Your task to perform on an android device: delete location history Image 0: 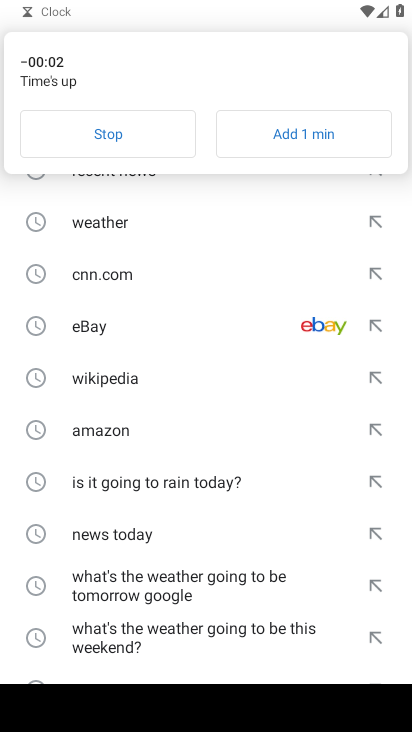
Step 0: press home button
Your task to perform on an android device: delete location history Image 1: 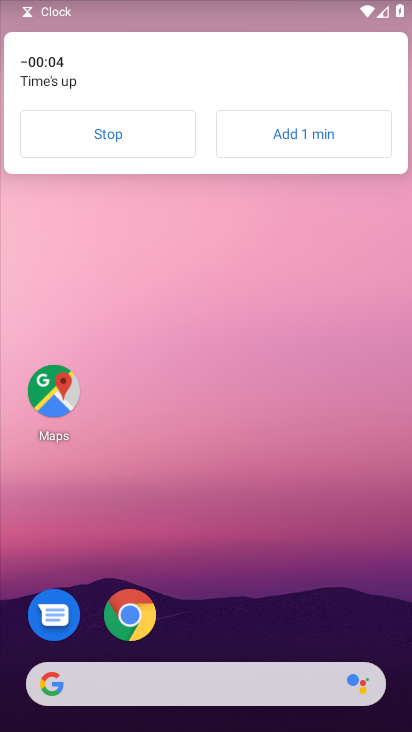
Step 1: click (109, 144)
Your task to perform on an android device: delete location history Image 2: 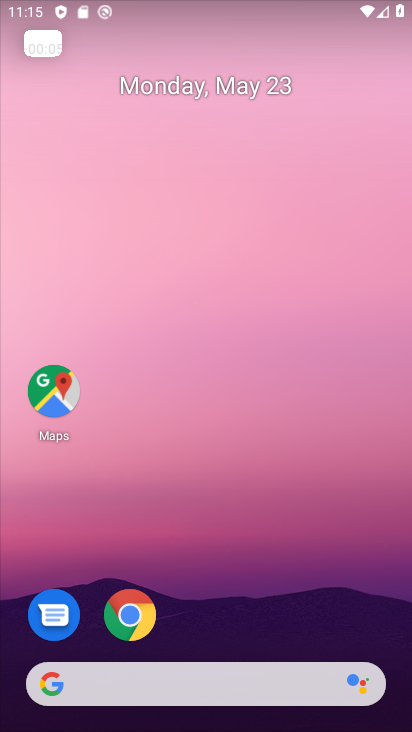
Step 2: click (53, 412)
Your task to perform on an android device: delete location history Image 3: 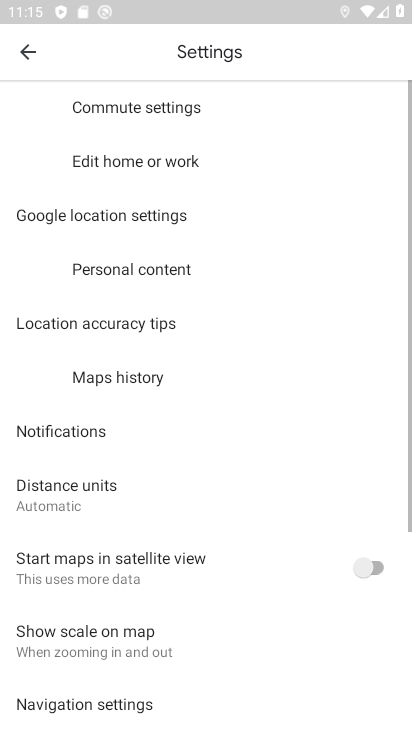
Step 3: click (29, 47)
Your task to perform on an android device: delete location history Image 4: 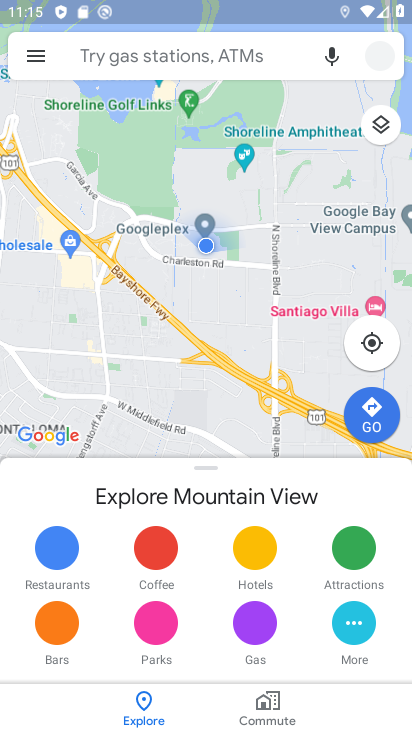
Step 4: click (29, 47)
Your task to perform on an android device: delete location history Image 5: 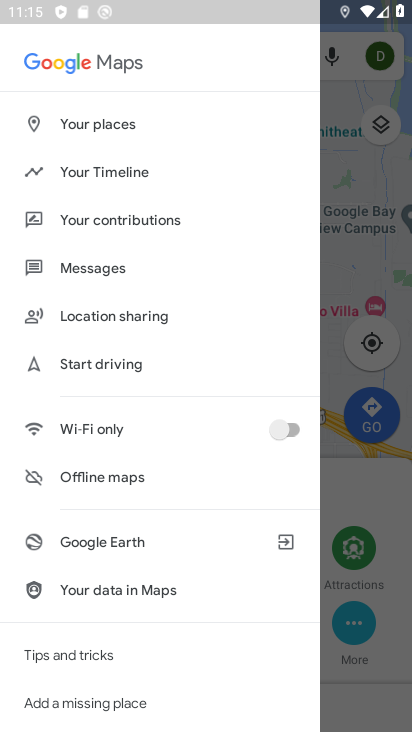
Step 5: click (96, 169)
Your task to perform on an android device: delete location history Image 6: 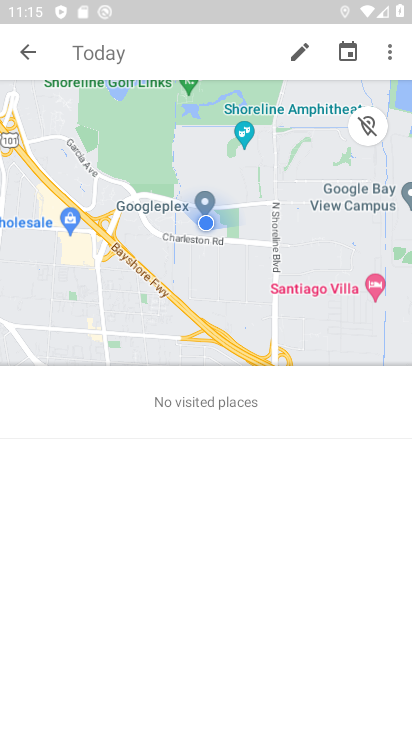
Step 6: click (400, 51)
Your task to perform on an android device: delete location history Image 7: 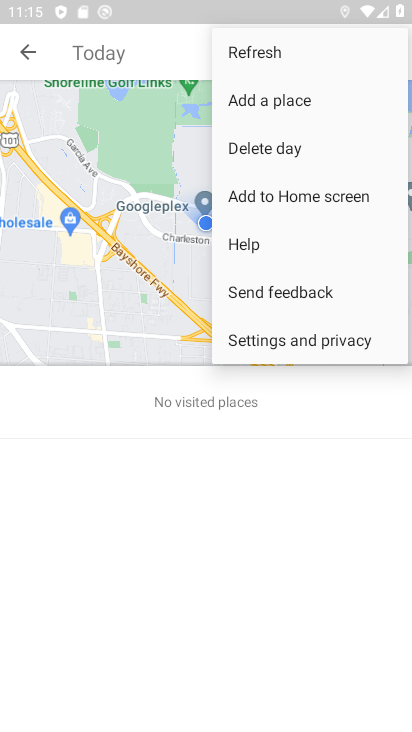
Step 7: click (267, 346)
Your task to perform on an android device: delete location history Image 8: 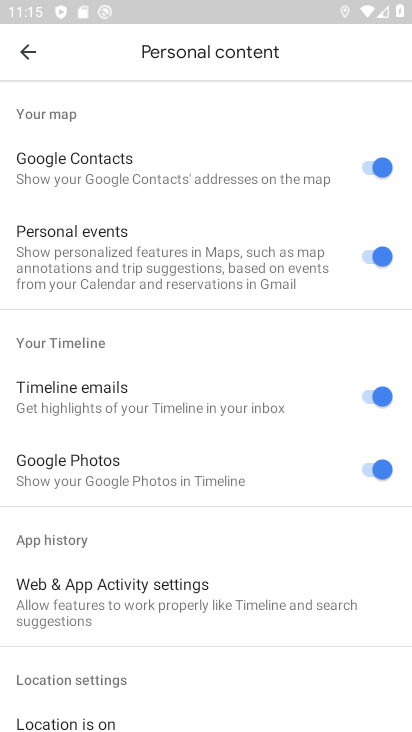
Step 8: drag from (126, 614) to (183, 271)
Your task to perform on an android device: delete location history Image 9: 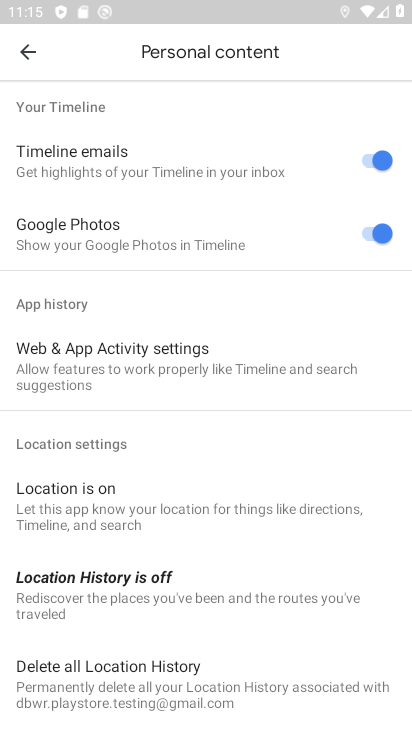
Step 9: click (80, 676)
Your task to perform on an android device: delete location history Image 10: 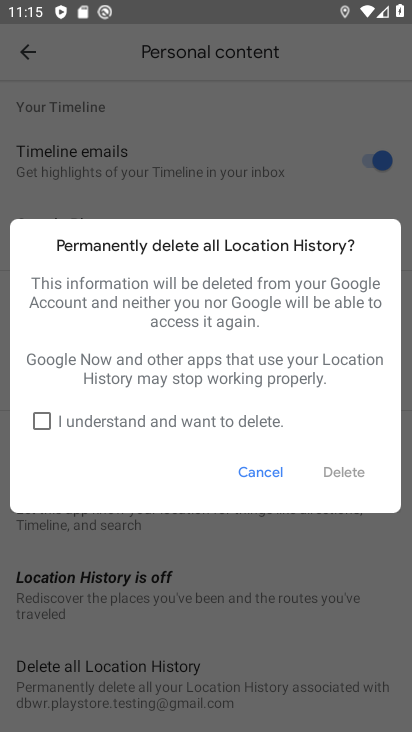
Step 10: click (46, 425)
Your task to perform on an android device: delete location history Image 11: 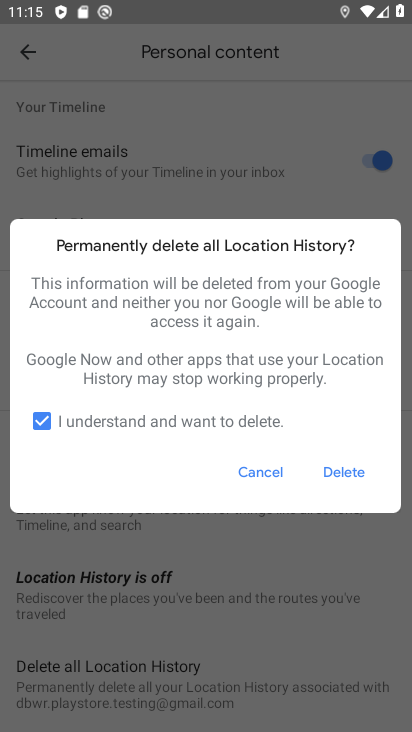
Step 11: click (375, 479)
Your task to perform on an android device: delete location history Image 12: 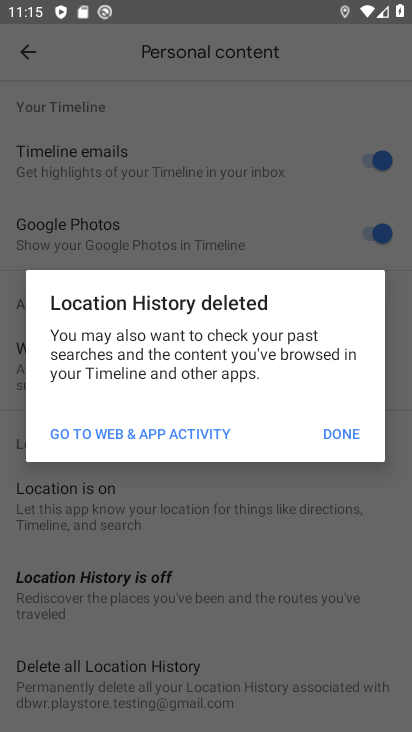
Step 12: click (355, 442)
Your task to perform on an android device: delete location history Image 13: 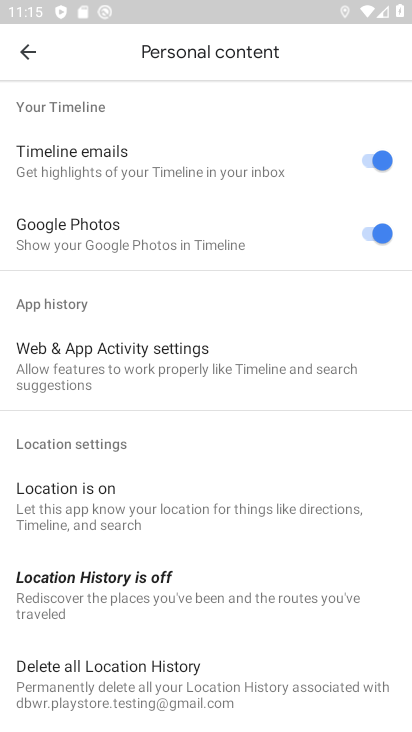
Step 13: task complete